Your task to perform on an android device: toggle data saver in the chrome app Image 0: 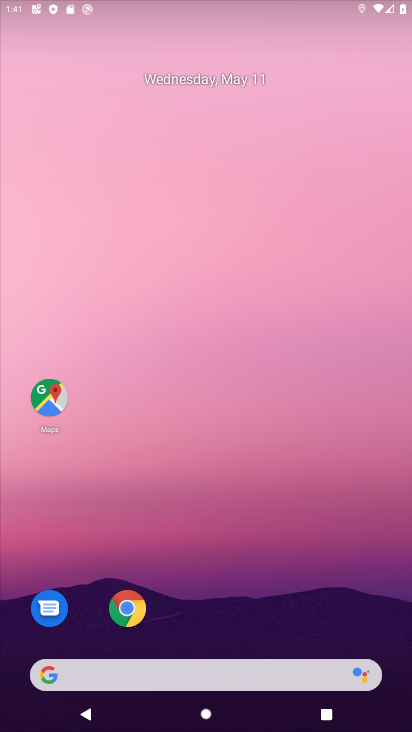
Step 0: drag from (253, 582) to (255, 320)
Your task to perform on an android device: toggle data saver in the chrome app Image 1: 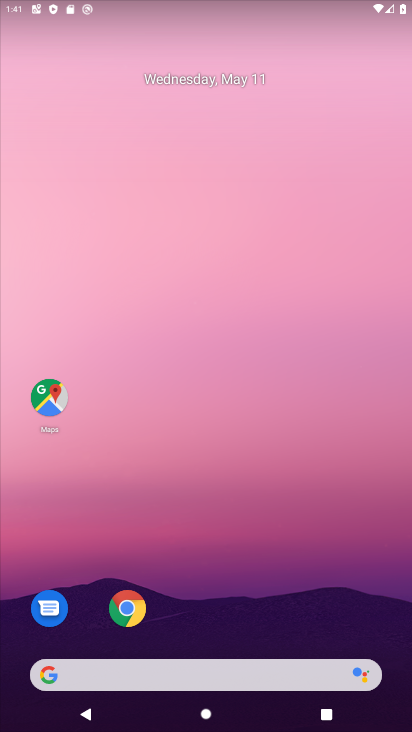
Step 1: drag from (213, 582) to (218, 284)
Your task to perform on an android device: toggle data saver in the chrome app Image 2: 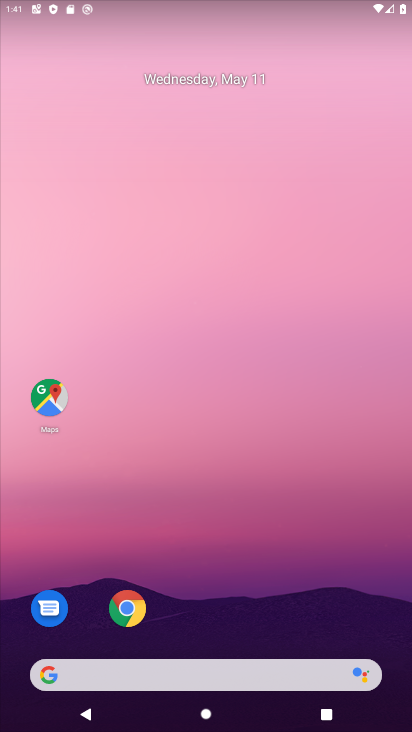
Step 2: click (134, 609)
Your task to perform on an android device: toggle data saver in the chrome app Image 3: 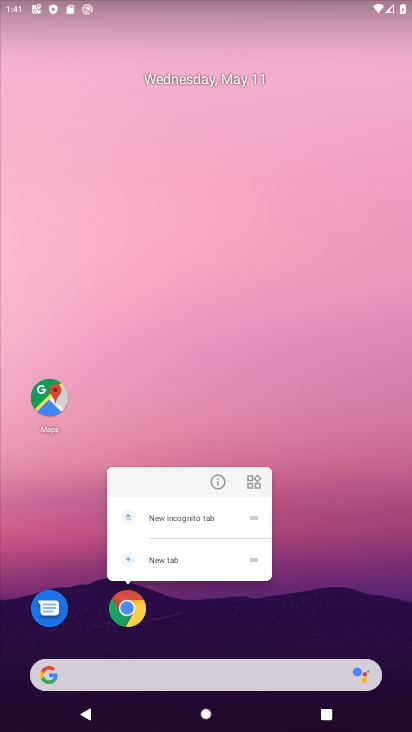
Step 3: click (134, 610)
Your task to perform on an android device: toggle data saver in the chrome app Image 4: 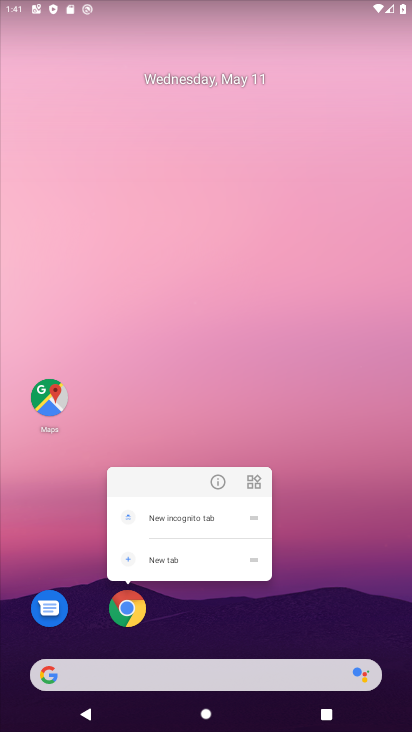
Step 4: click (134, 610)
Your task to perform on an android device: toggle data saver in the chrome app Image 5: 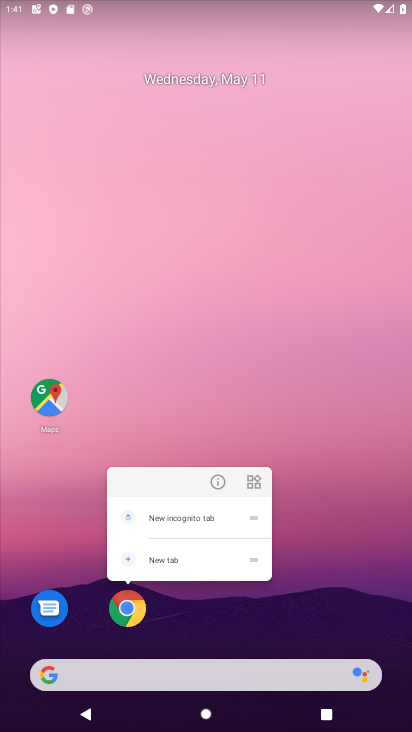
Step 5: click (134, 610)
Your task to perform on an android device: toggle data saver in the chrome app Image 6: 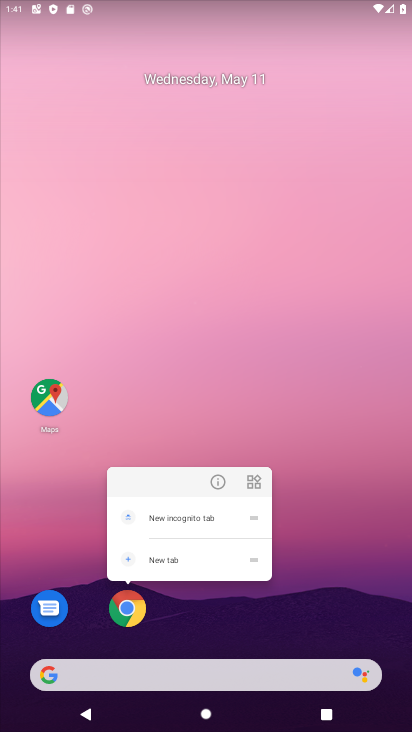
Step 6: click (135, 610)
Your task to perform on an android device: toggle data saver in the chrome app Image 7: 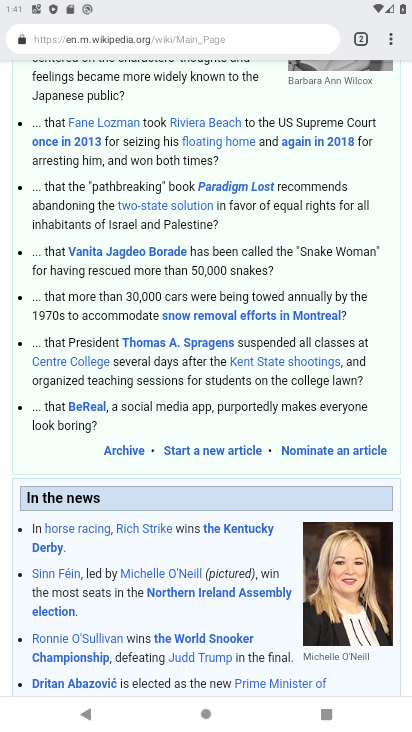
Step 7: drag from (225, 185) to (386, 550)
Your task to perform on an android device: toggle data saver in the chrome app Image 8: 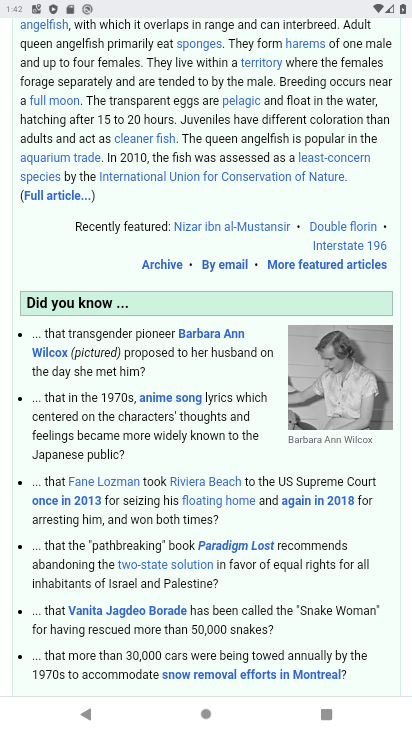
Step 8: drag from (382, 35) to (395, 473)
Your task to perform on an android device: toggle data saver in the chrome app Image 9: 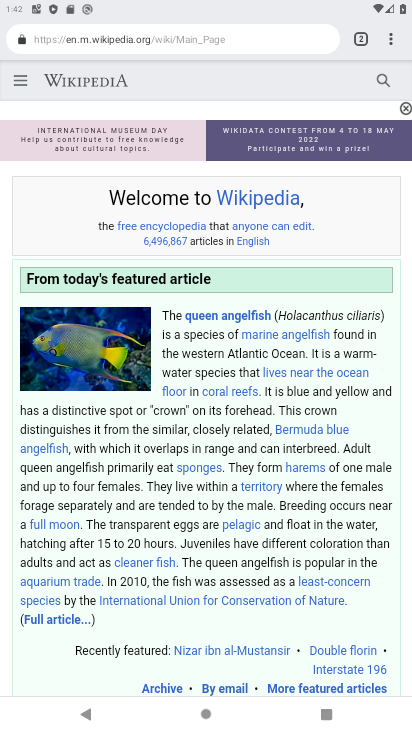
Step 9: click (384, 35)
Your task to perform on an android device: toggle data saver in the chrome app Image 10: 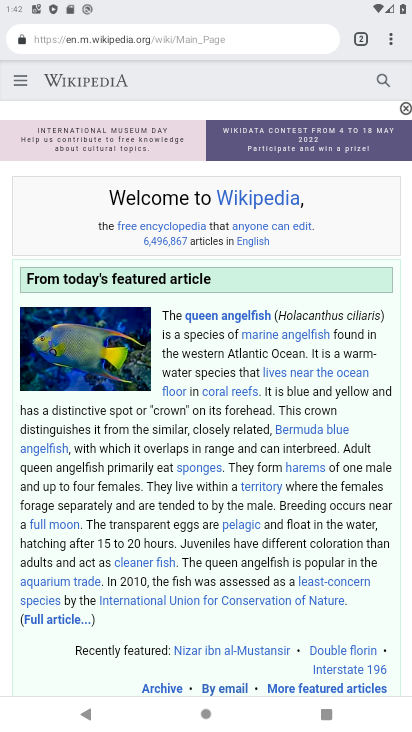
Step 10: click (389, 37)
Your task to perform on an android device: toggle data saver in the chrome app Image 11: 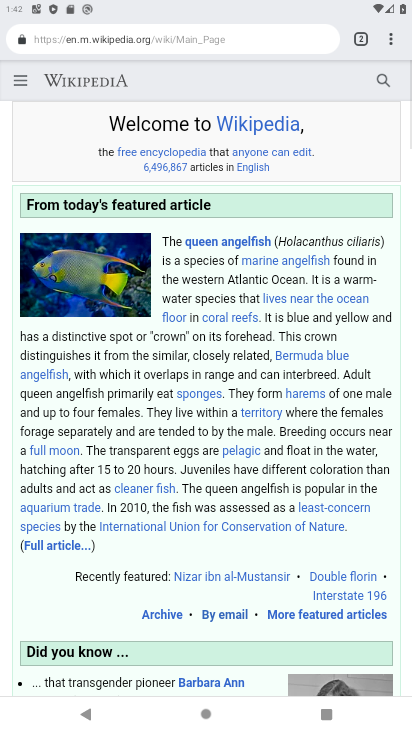
Step 11: click (390, 38)
Your task to perform on an android device: toggle data saver in the chrome app Image 12: 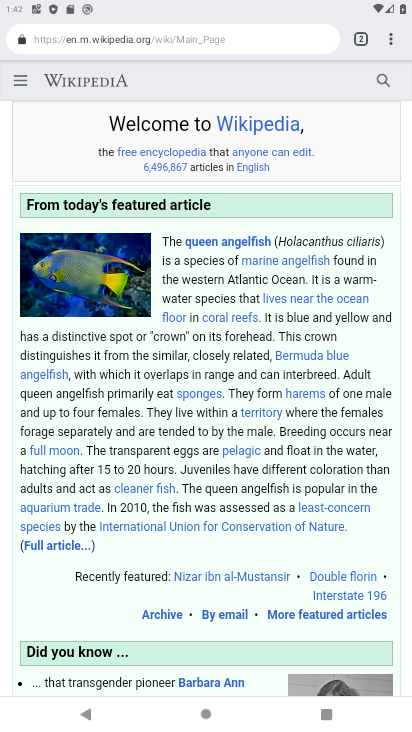
Step 12: click (390, 38)
Your task to perform on an android device: toggle data saver in the chrome app Image 13: 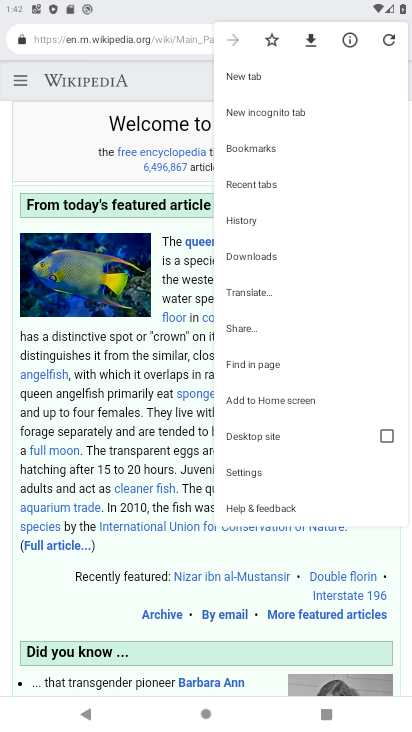
Step 13: click (390, 38)
Your task to perform on an android device: toggle data saver in the chrome app Image 14: 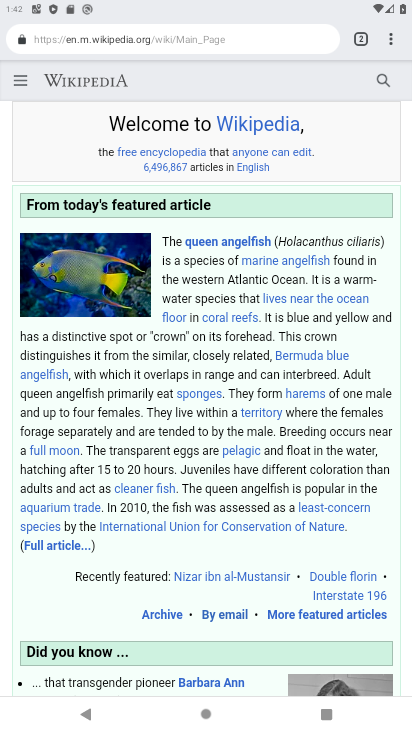
Step 14: click (392, 39)
Your task to perform on an android device: toggle data saver in the chrome app Image 15: 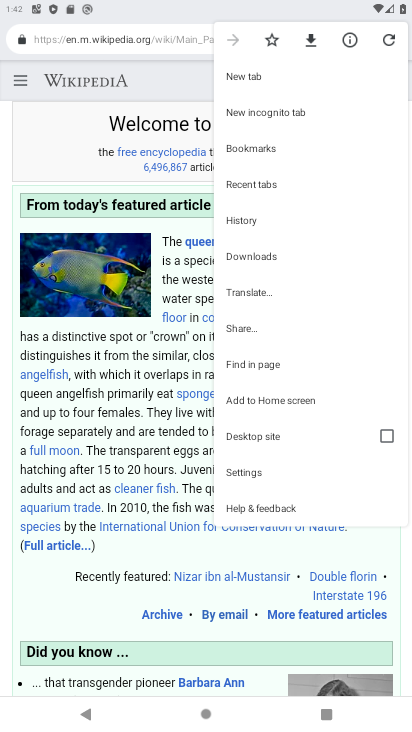
Step 15: click (275, 471)
Your task to perform on an android device: toggle data saver in the chrome app Image 16: 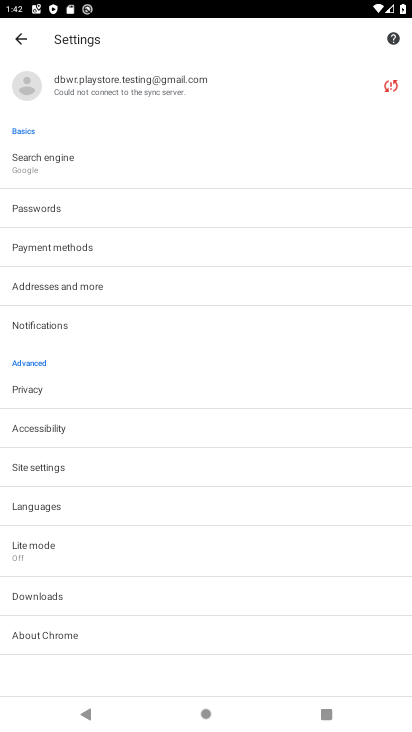
Step 16: click (127, 462)
Your task to perform on an android device: toggle data saver in the chrome app Image 17: 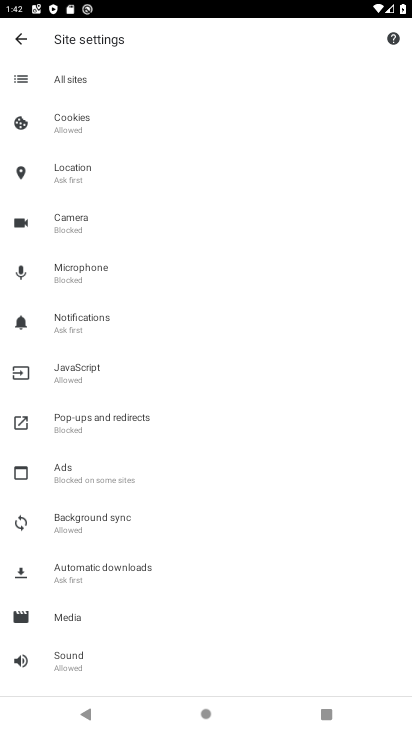
Step 17: task complete